Your task to perform on an android device: make emails show in primary in the gmail app Image 0: 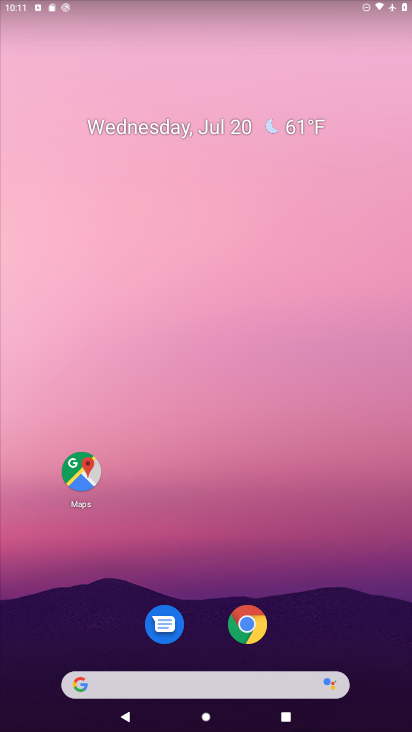
Step 0: drag from (207, 583) to (187, 157)
Your task to perform on an android device: make emails show in primary in the gmail app Image 1: 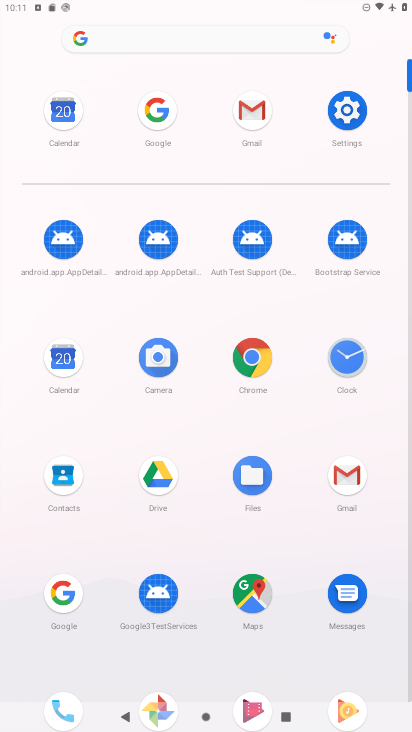
Step 1: click (266, 122)
Your task to perform on an android device: make emails show in primary in the gmail app Image 2: 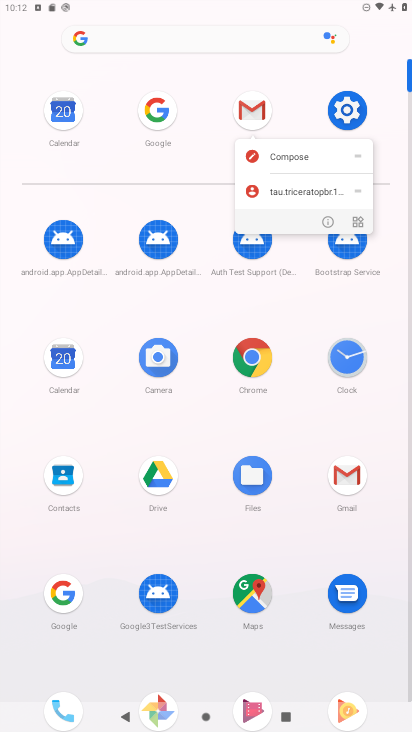
Step 2: click (245, 122)
Your task to perform on an android device: make emails show in primary in the gmail app Image 3: 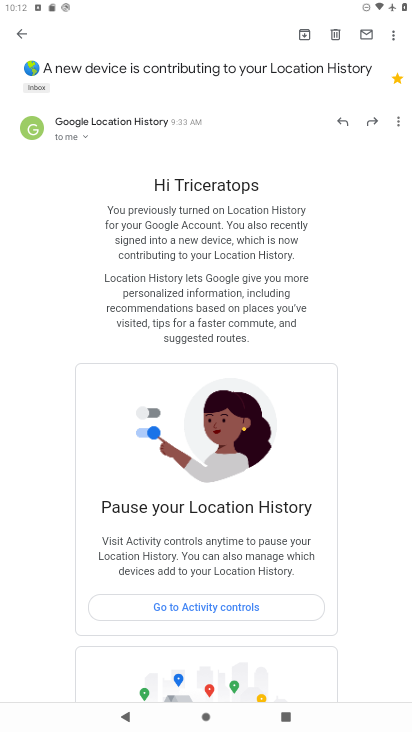
Step 3: click (27, 40)
Your task to perform on an android device: make emails show in primary in the gmail app Image 4: 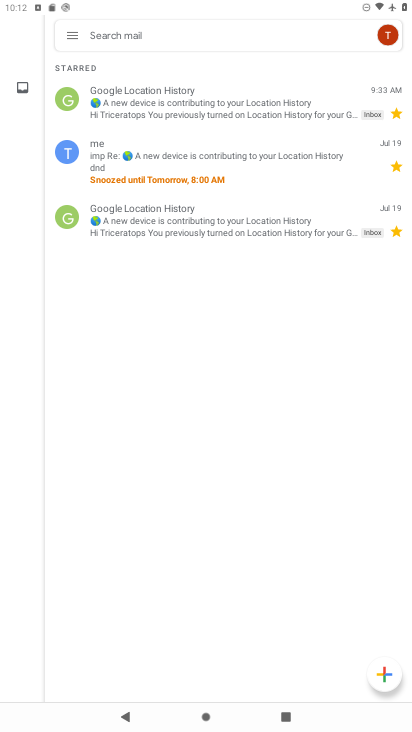
Step 4: click (67, 35)
Your task to perform on an android device: make emails show in primary in the gmail app Image 5: 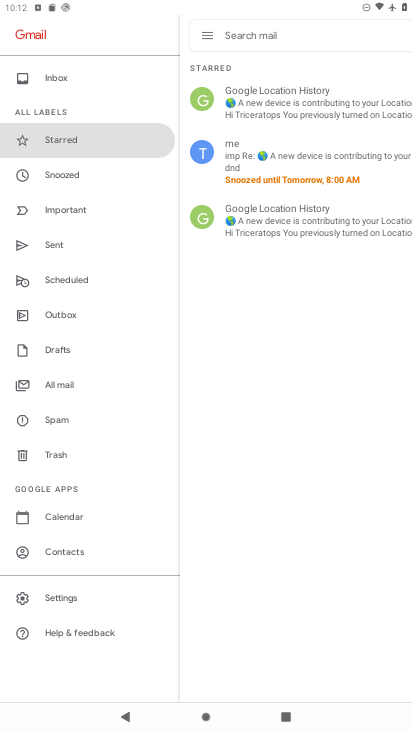
Step 5: click (89, 602)
Your task to perform on an android device: make emails show in primary in the gmail app Image 6: 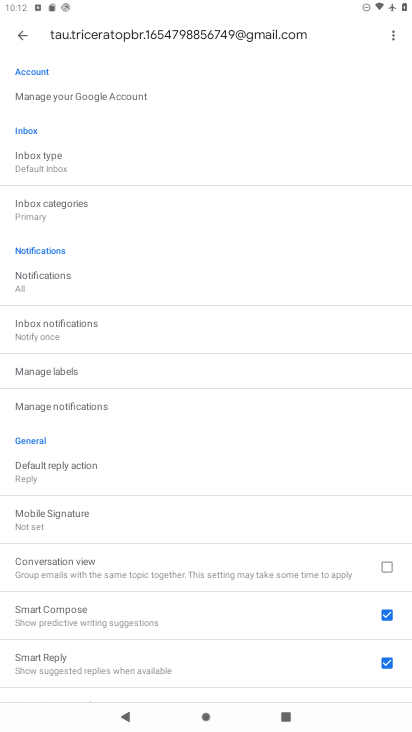
Step 6: click (71, 166)
Your task to perform on an android device: make emails show in primary in the gmail app Image 7: 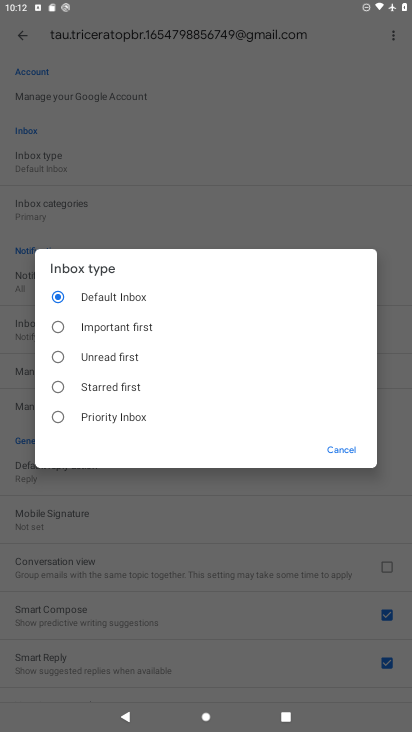
Step 7: task complete